Your task to perform on an android device: See recent photos Image 0: 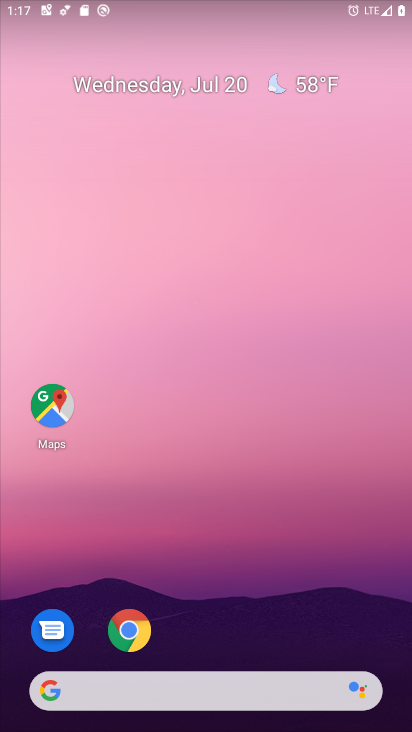
Step 0: click (75, 103)
Your task to perform on an android device: See recent photos Image 1: 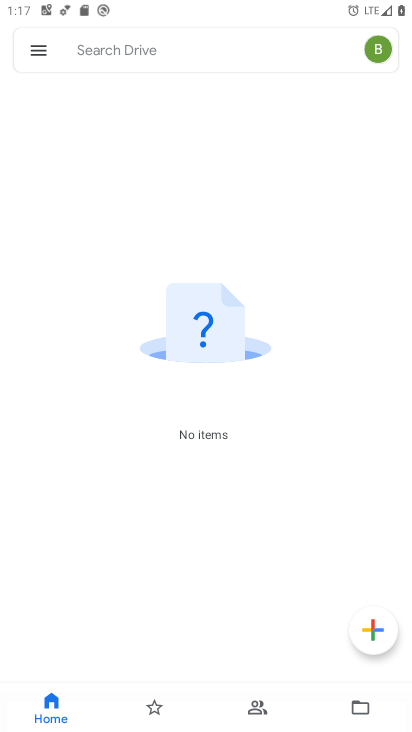
Step 1: click (38, 54)
Your task to perform on an android device: See recent photos Image 2: 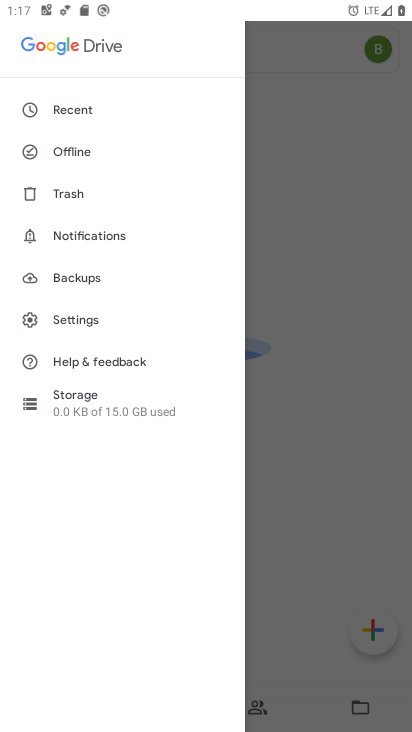
Step 2: click (81, 117)
Your task to perform on an android device: See recent photos Image 3: 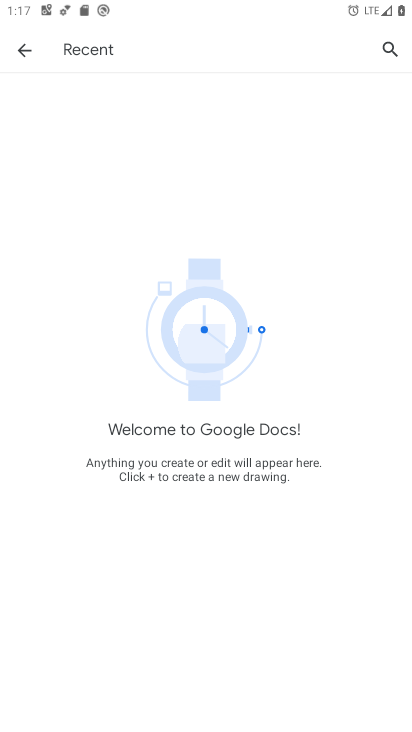
Step 3: task complete